Your task to perform on an android device: Open Youtube and go to the subscriptions tab Image 0: 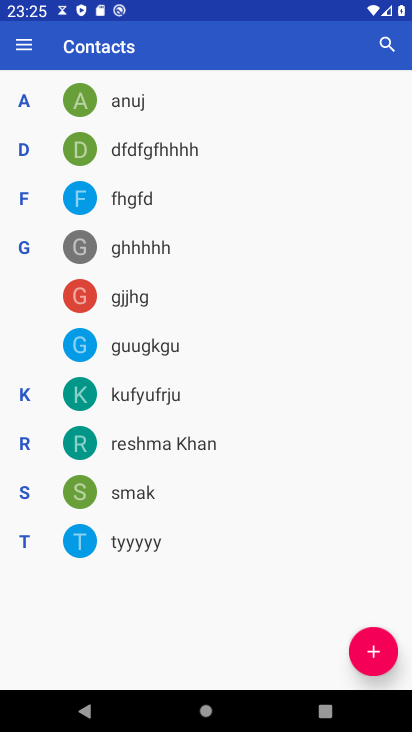
Step 0: press home button
Your task to perform on an android device: Open Youtube and go to the subscriptions tab Image 1: 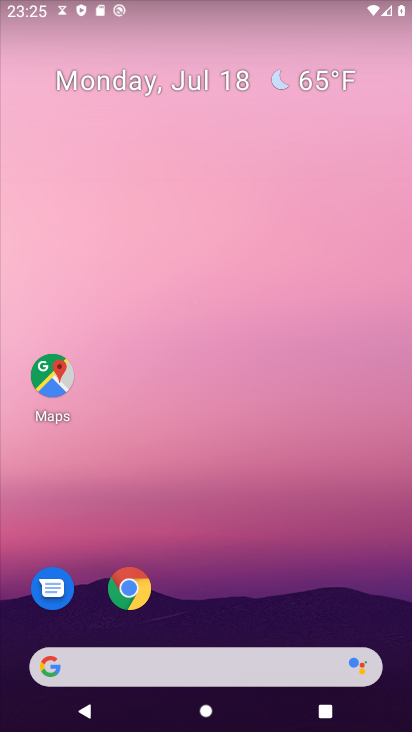
Step 1: drag from (298, 582) to (325, 129)
Your task to perform on an android device: Open Youtube and go to the subscriptions tab Image 2: 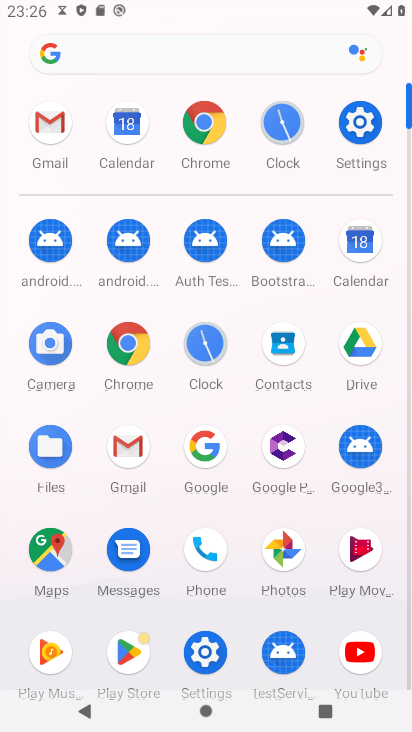
Step 2: click (361, 656)
Your task to perform on an android device: Open Youtube and go to the subscriptions tab Image 3: 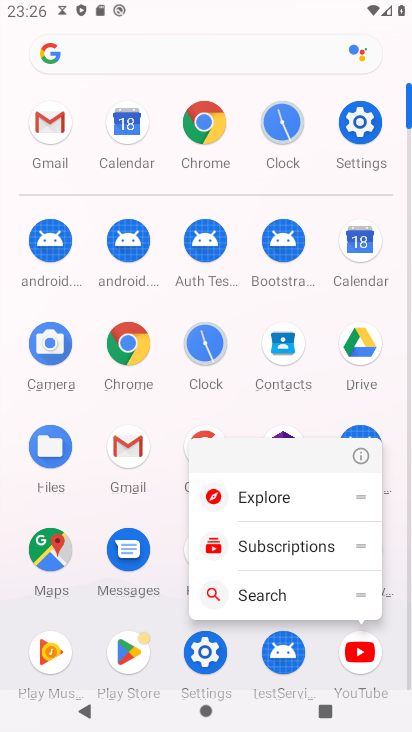
Step 3: click (358, 658)
Your task to perform on an android device: Open Youtube and go to the subscriptions tab Image 4: 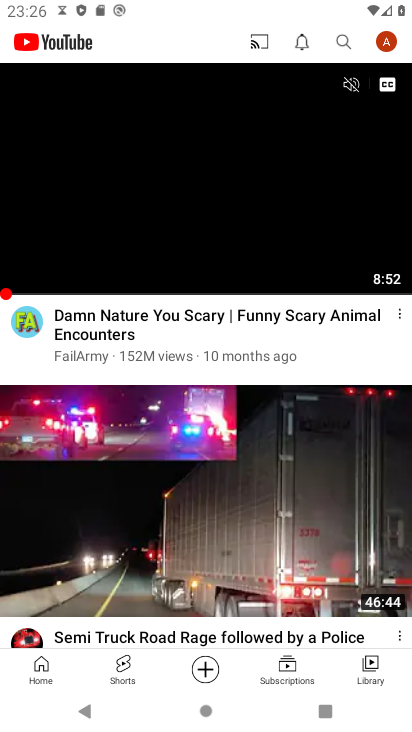
Step 4: click (279, 669)
Your task to perform on an android device: Open Youtube and go to the subscriptions tab Image 5: 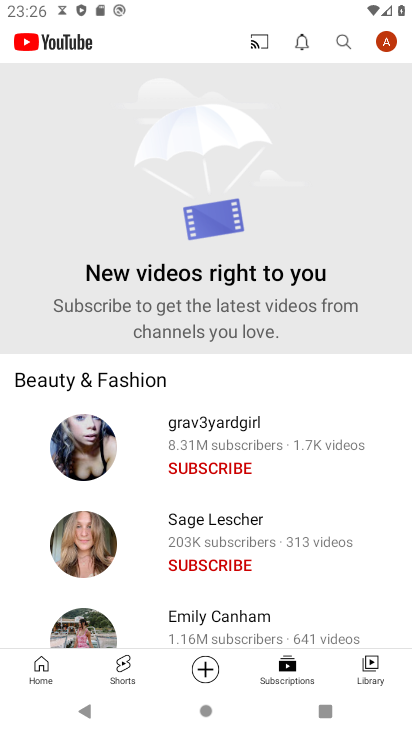
Step 5: task complete